Your task to perform on an android device: Open sound settings Image 0: 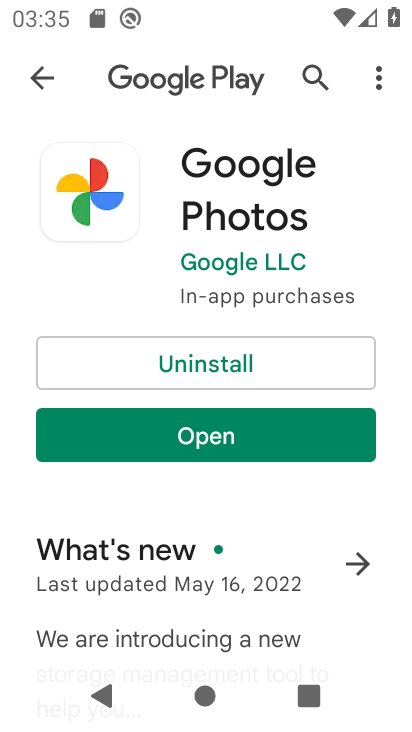
Step 0: press back button
Your task to perform on an android device: Open sound settings Image 1: 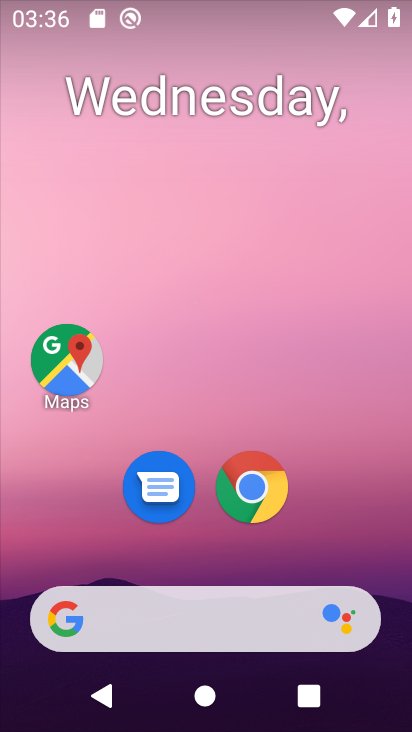
Step 1: drag from (343, 552) to (267, 239)
Your task to perform on an android device: Open sound settings Image 2: 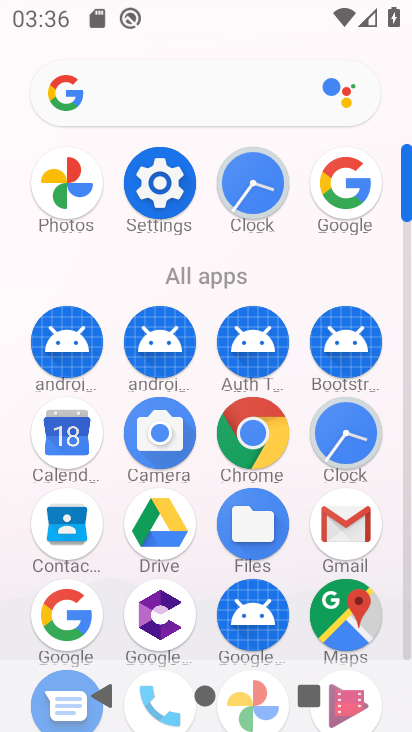
Step 2: click (160, 180)
Your task to perform on an android device: Open sound settings Image 3: 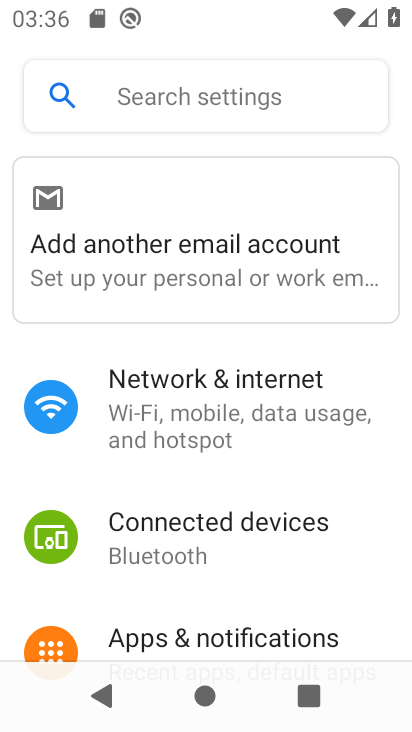
Step 3: drag from (146, 455) to (212, 353)
Your task to perform on an android device: Open sound settings Image 4: 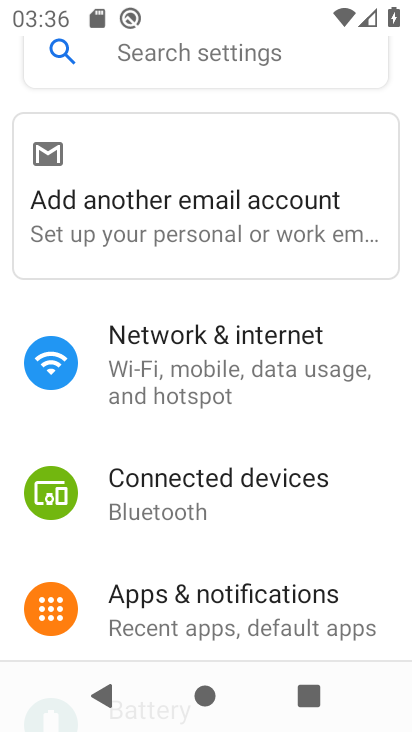
Step 4: drag from (176, 556) to (208, 468)
Your task to perform on an android device: Open sound settings Image 5: 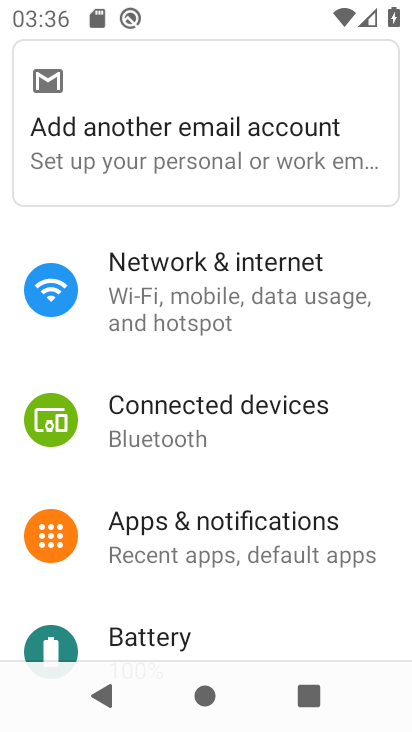
Step 5: drag from (174, 591) to (233, 478)
Your task to perform on an android device: Open sound settings Image 6: 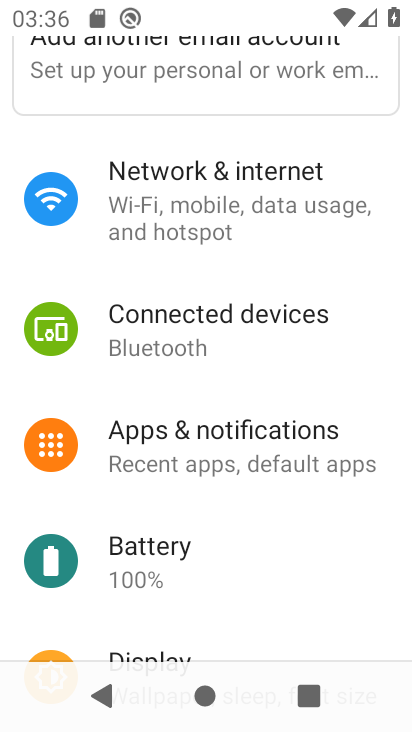
Step 6: drag from (188, 536) to (258, 420)
Your task to perform on an android device: Open sound settings Image 7: 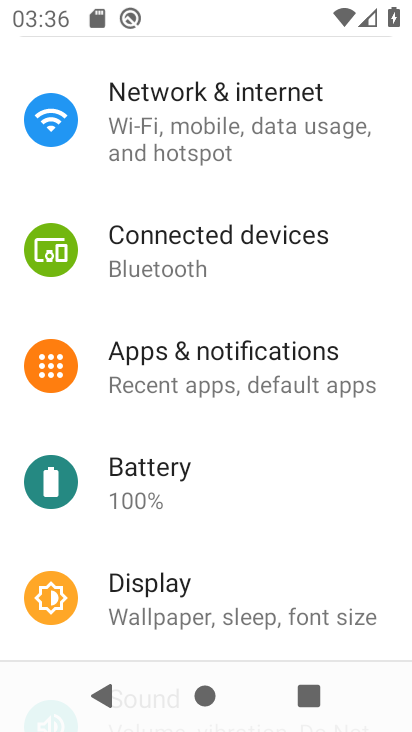
Step 7: drag from (214, 548) to (279, 441)
Your task to perform on an android device: Open sound settings Image 8: 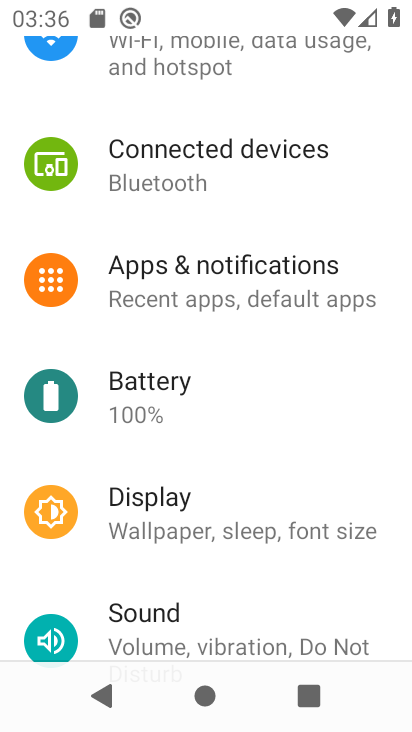
Step 8: drag from (183, 617) to (261, 479)
Your task to perform on an android device: Open sound settings Image 9: 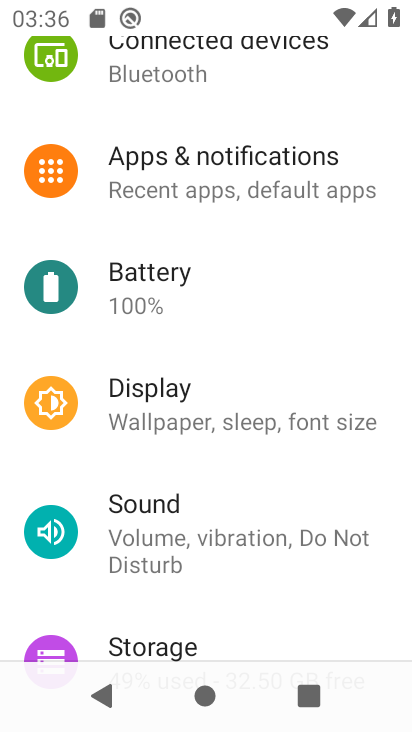
Step 9: click (117, 519)
Your task to perform on an android device: Open sound settings Image 10: 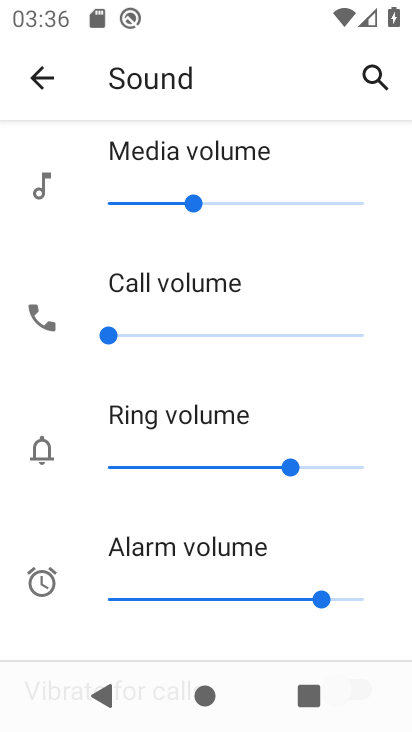
Step 10: task complete